Your task to perform on an android device: turn notification dots on Image 0: 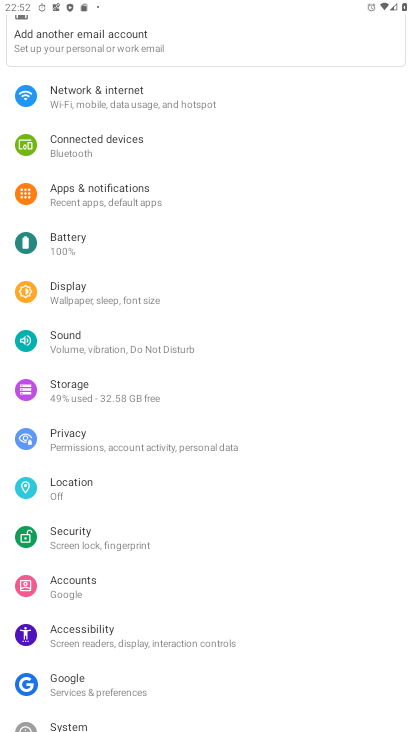
Step 0: click (99, 190)
Your task to perform on an android device: turn notification dots on Image 1: 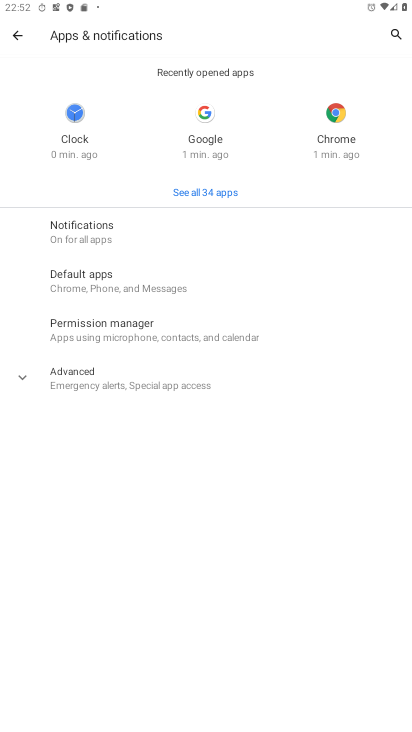
Step 1: click (96, 223)
Your task to perform on an android device: turn notification dots on Image 2: 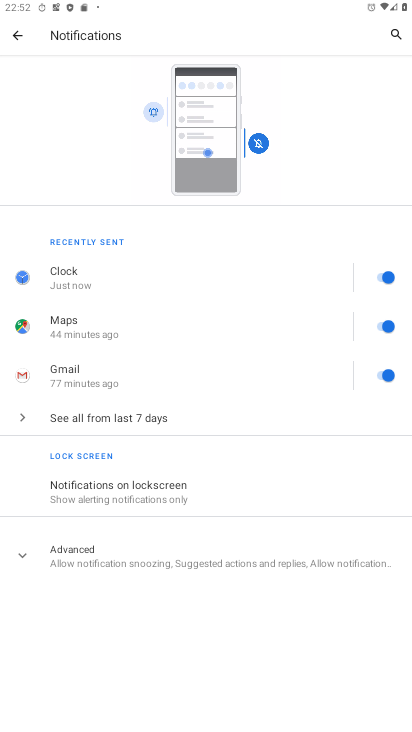
Step 2: click (79, 551)
Your task to perform on an android device: turn notification dots on Image 3: 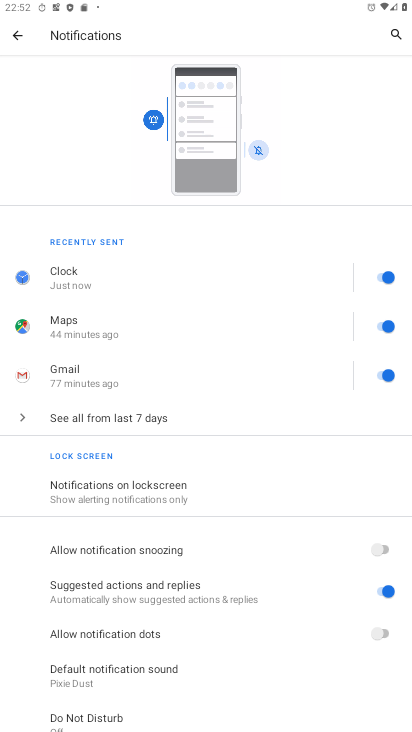
Step 3: click (382, 632)
Your task to perform on an android device: turn notification dots on Image 4: 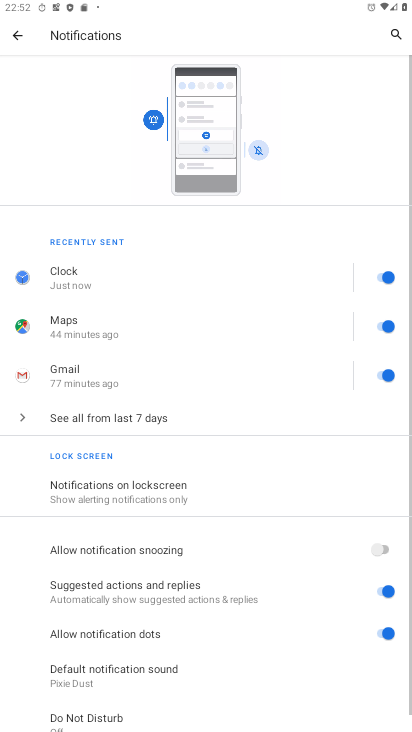
Step 4: task complete